Your task to perform on an android device: change timer sound Image 0: 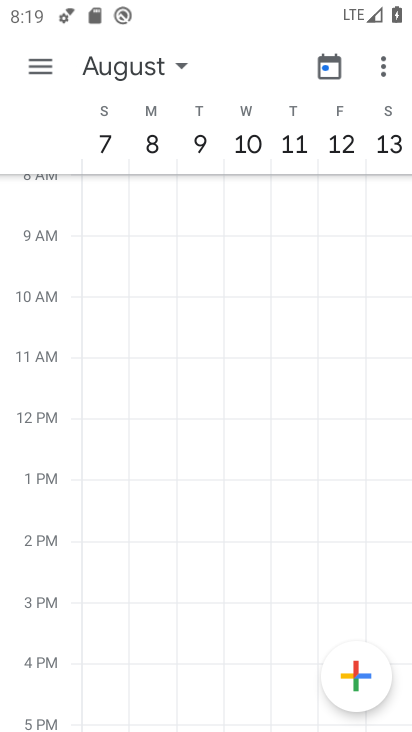
Step 0: press home button
Your task to perform on an android device: change timer sound Image 1: 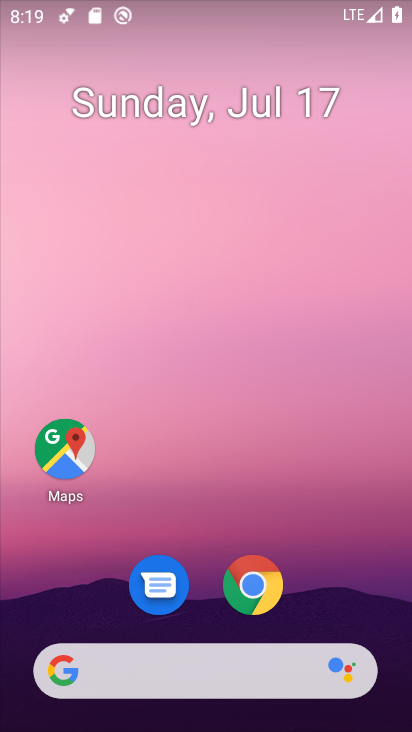
Step 1: drag from (321, 542) to (332, 19)
Your task to perform on an android device: change timer sound Image 2: 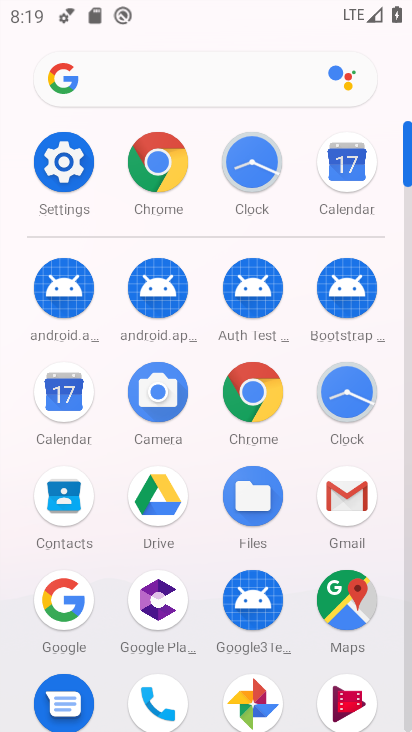
Step 2: click (271, 167)
Your task to perform on an android device: change timer sound Image 3: 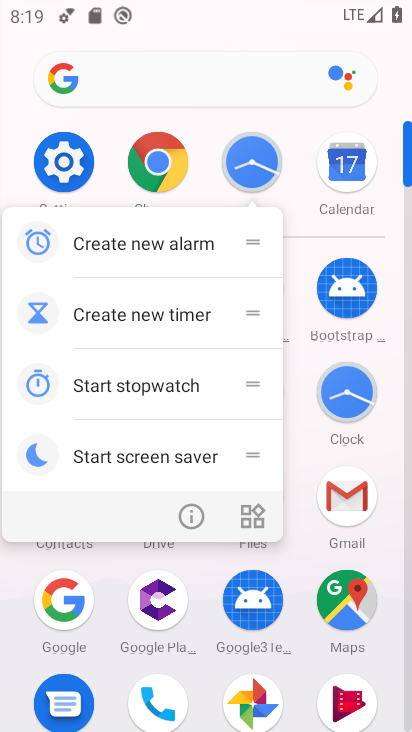
Step 3: click (251, 157)
Your task to perform on an android device: change timer sound Image 4: 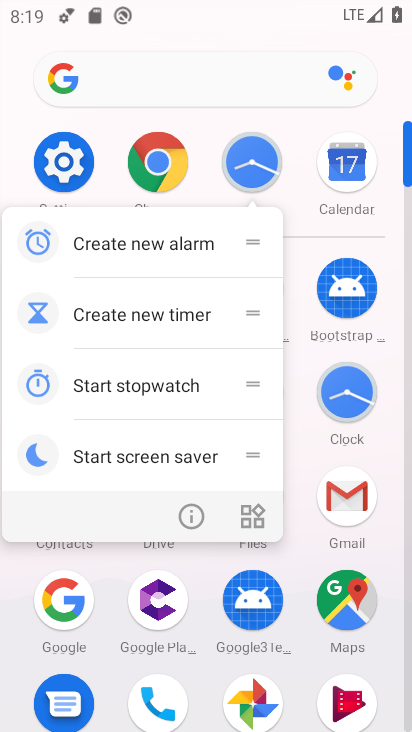
Step 4: click (253, 138)
Your task to perform on an android device: change timer sound Image 5: 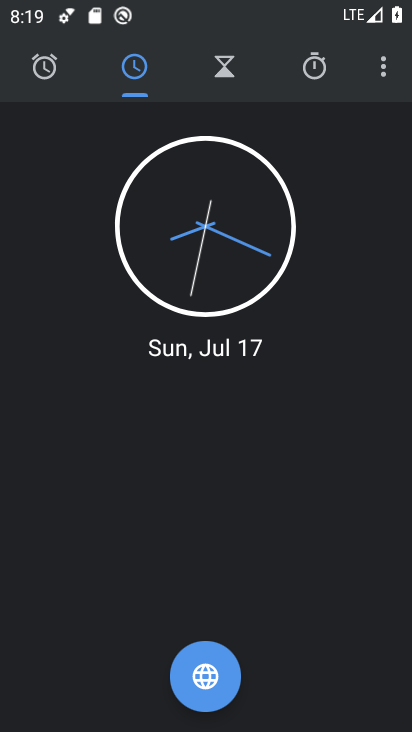
Step 5: click (378, 70)
Your task to perform on an android device: change timer sound Image 6: 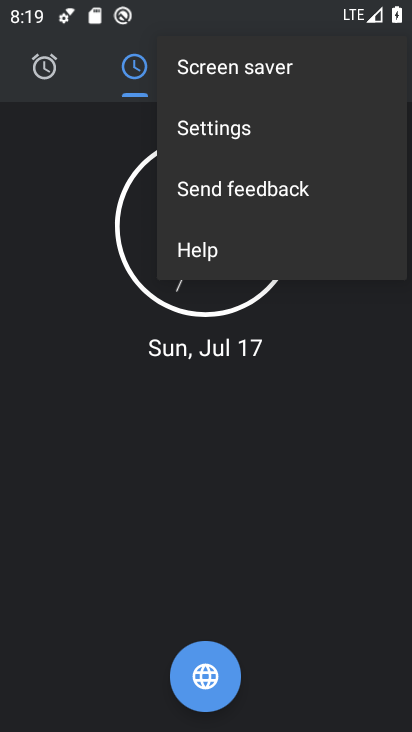
Step 6: click (314, 137)
Your task to perform on an android device: change timer sound Image 7: 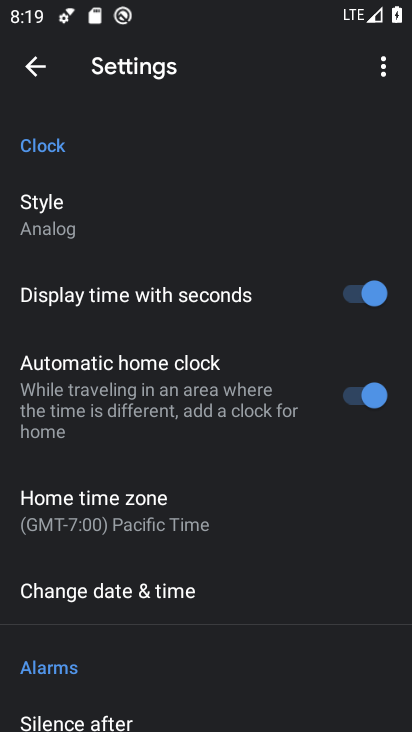
Step 7: drag from (294, 519) to (363, 103)
Your task to perform on an android device: change timer sound Image 8: 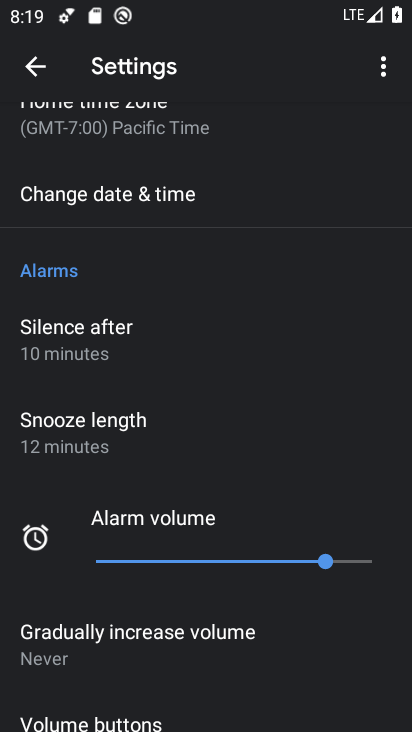
Step 8: drag from (199, 423) to (248, 93)
Your task to perform on an android device: change timer sound Image 9: 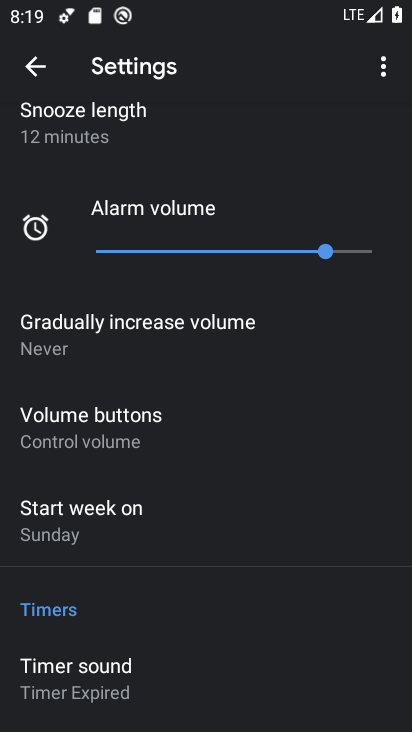
Step 9: drag from (201, 437) to (221, 238)
Your task to perform on an android device: change timer sound Image 10: 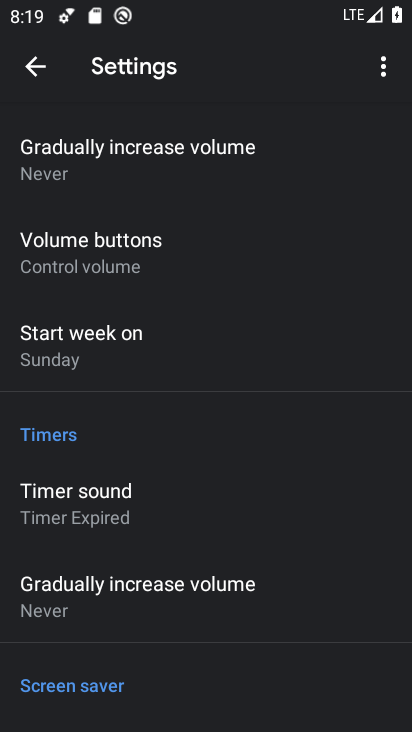
Step 10: click (90, 505)
Your task to perform on an android device: change timer sound Image 11: 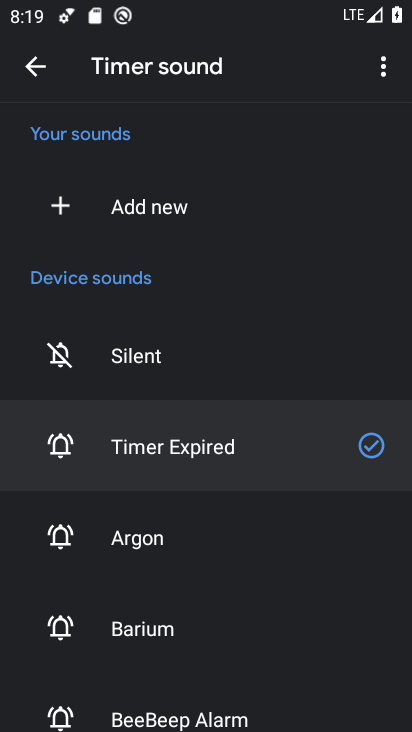
Step 11: click (103, 549)
Your task to perform on an android device: change timer sound Image 12: 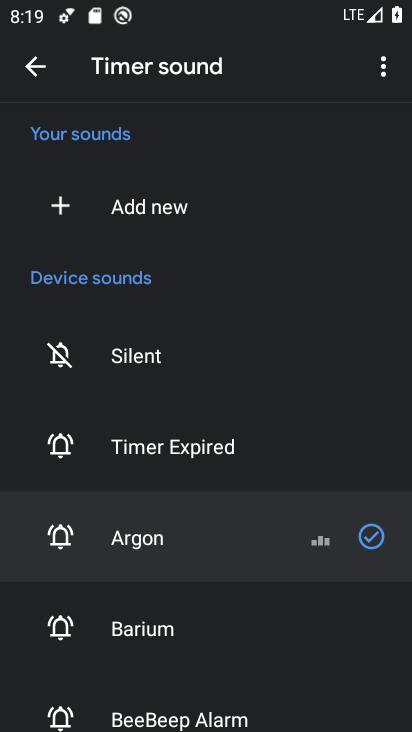
Step 12: task complete